Your task to perform on an android device: What's on my calendar tomorrow? Image 0: 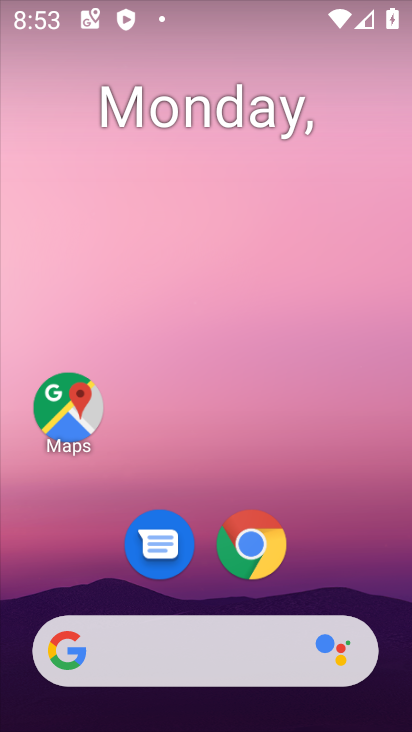
Step 0: drag from (267, 431) to (227, 50)
Your task to perform on an android device: What's on my calendar tomorrow? Image 1: 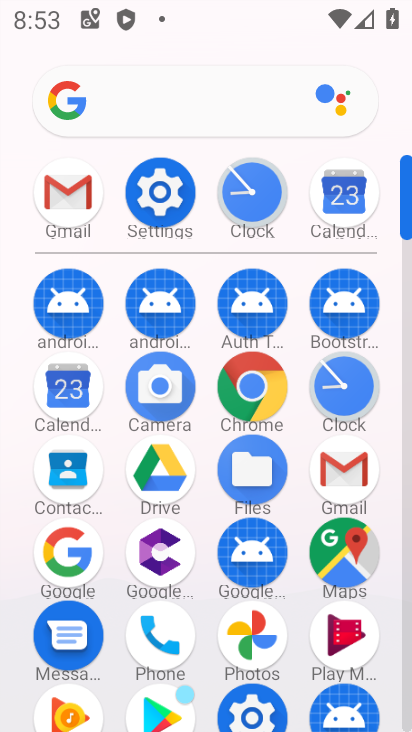
Step 1: click (59, 396)
Your task to perform on an android device: What's on my calendar tomorrow? Image 2: 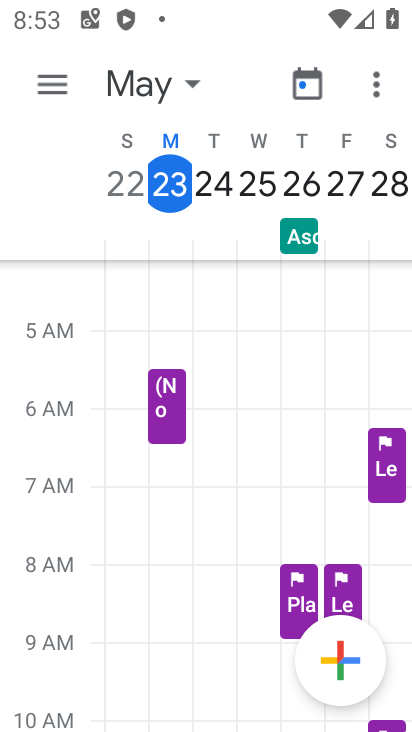
Step 2: click (207, 183)
Your task to perform on an android device: What's on my calendar tomorrow? Image 3: 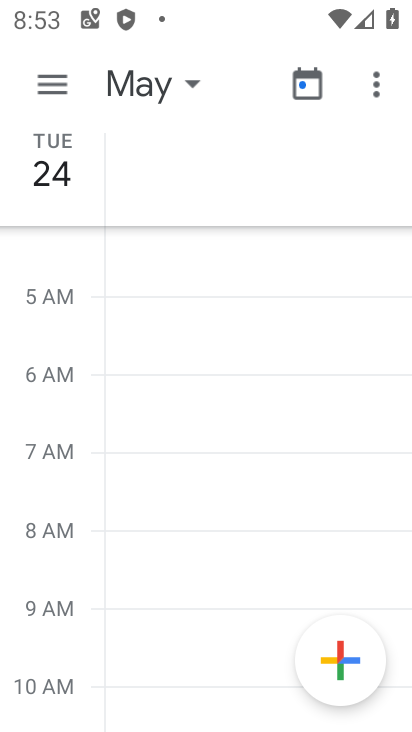
Step 3: task complete